Your task to perform on an android device: Show me popular videos on Youtube Image 0: 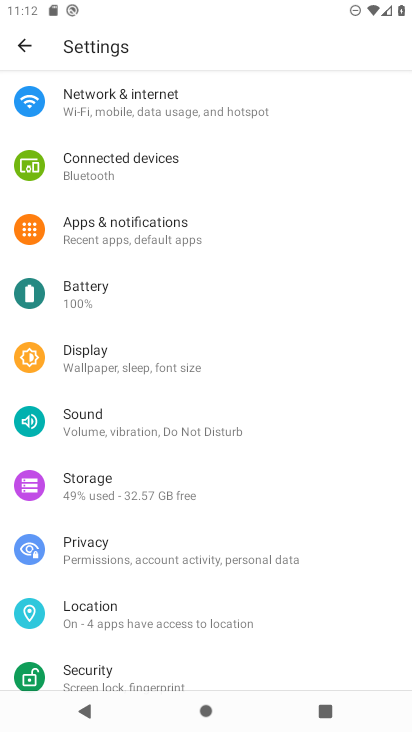
Step 0: press home button
Your task to perform on an android device: Show me popular videos on Youtube Image 1: 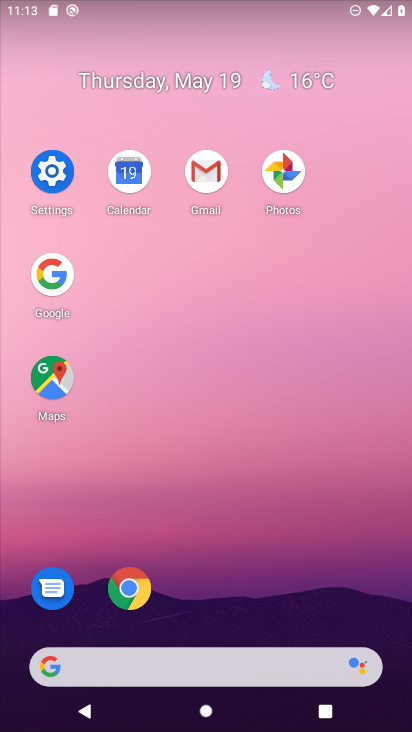
Step 1: drag from (307, 592) to (310, 177)
Your task to perform on an android device: Show me popular videos on Youtube Image 2: 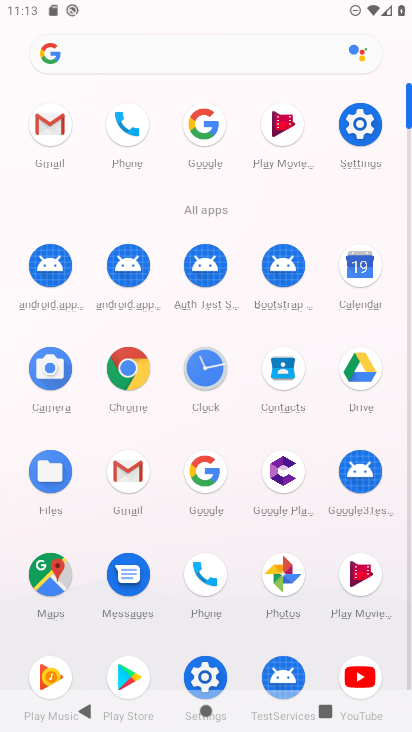
Step 2: click (368, 672)
Your task to perform on an android device: Show me popular videos on Youtube Image 3: 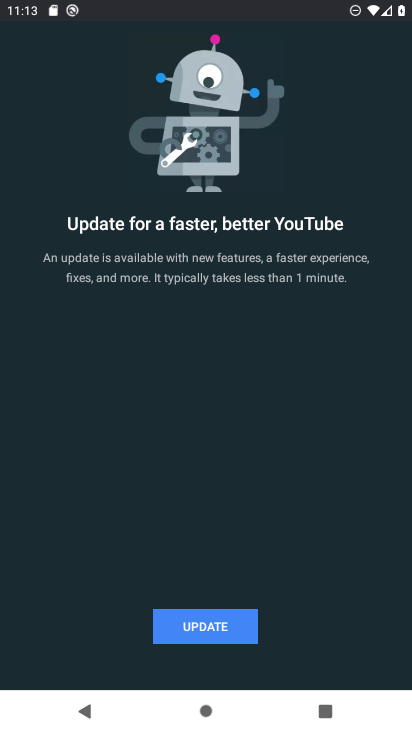
Step 3: click (212, 639)
Your task to perform on an android device: Show me popular videos on Youtube Image 4: 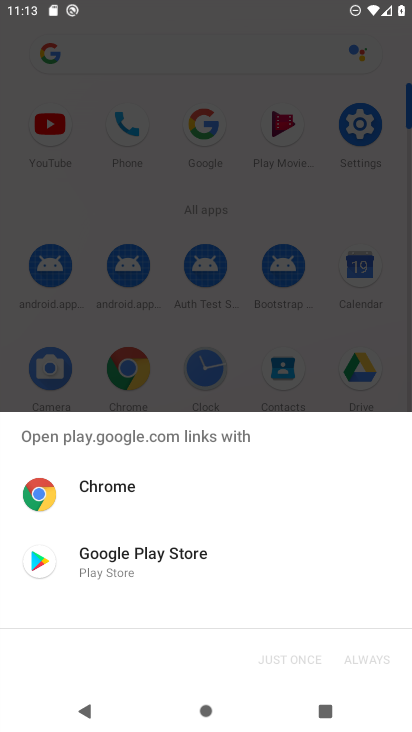
Step 4: click (134, 572)
Your task to perform on an android device: Show me popular videos on Youtube Image 5: 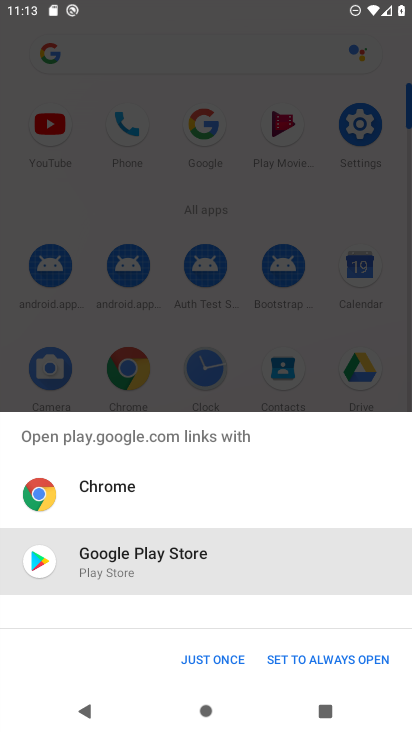
Step 5: click (127, 563)
Your task to perform on an android device: Show me popular videos on Youtube Image 6: 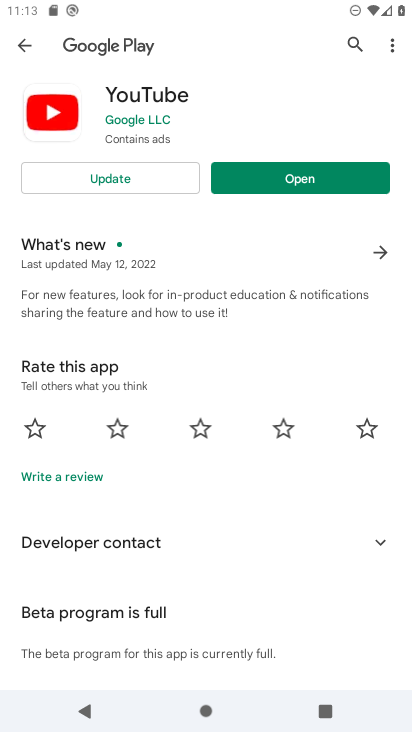
Step 6: click (149, 170)
Your task to perform on an android device: Show me popular videos on Youtube Image 7: 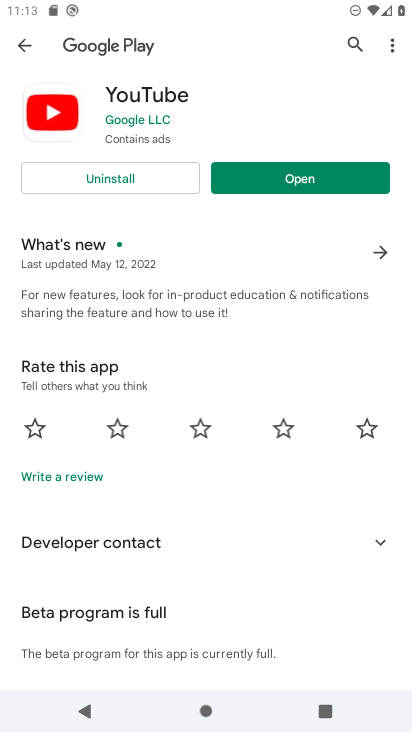
Step 7: click (254, 179)
Your task to perform on an android device: Show me popular videos on Youtube Image 8: 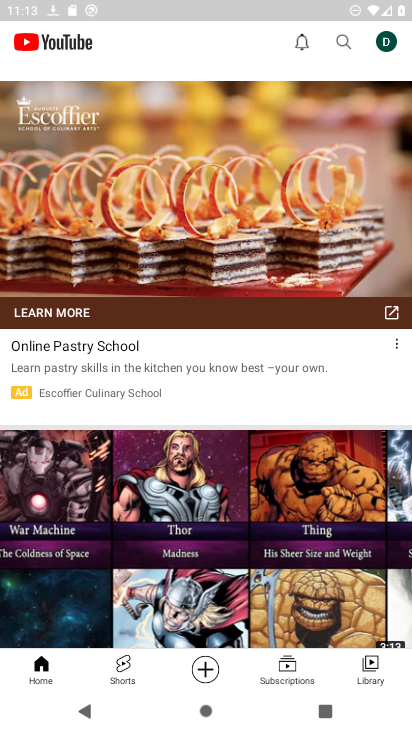
Step 8: task complete